Your task to perform on an android device: Search for "razer huntsman" on ebay.com, select the first entry, and add it to the cart. Image 0: 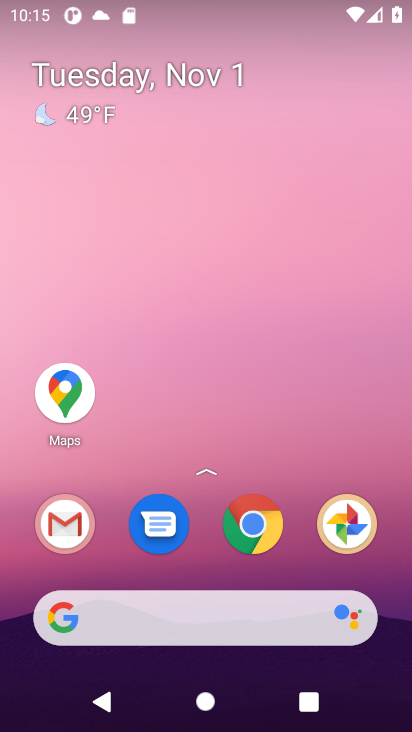
Step 0: press home button
Your task to perform on an android device: Search for "razer huntsman" on ebay.com, select the first entry, and add it to the cart. Image 1: 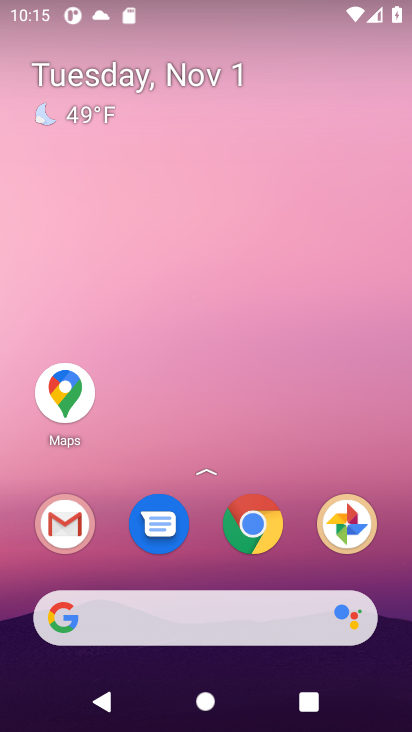
Step 1: click (95, 620)
Your task to perform on an android device: Search for "razer huntsman" on ebay.com, select the first entry, and add it to the cart. Image 2: 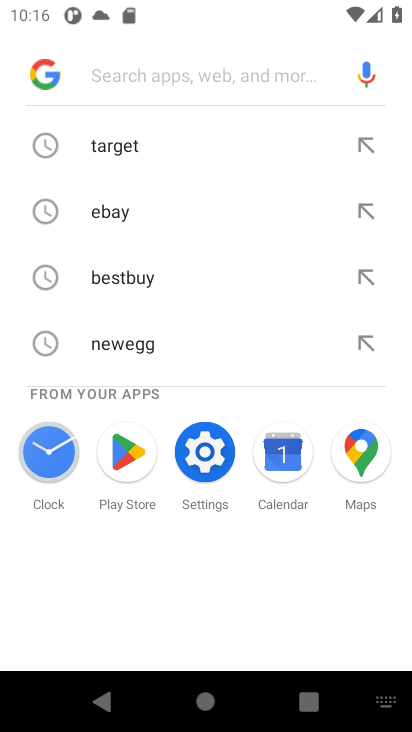
Step 2: type "ebay.com"
Your task to perform on an android device: Search for "razer huntsman" on ebay.com, select the first entry, and add it to the cart. Image 3: 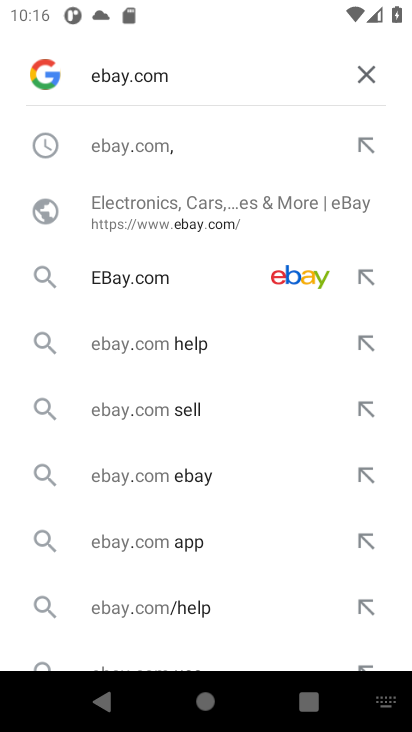
Step 3: press enter
Your task to perform on an android device: Search for "razer huntsman" on ebay.com, select the first entry, and add it to the cart. Image 4: 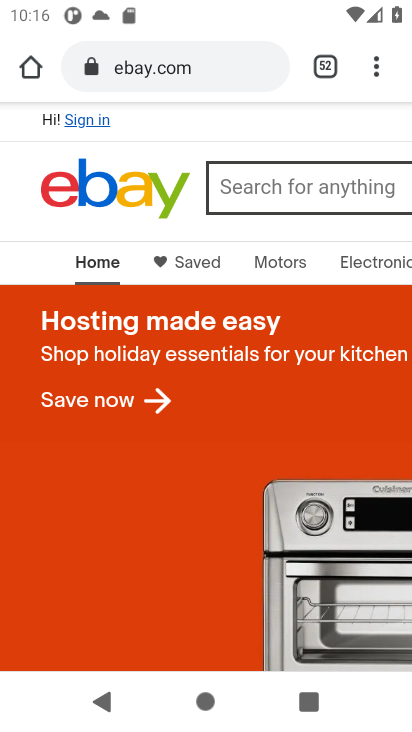
Step 4: click (260, 183)
Your task to perform on an android device: Search for "razer huntsman" on ebay.com, select the first entry, and add it to the cart. Image 5: 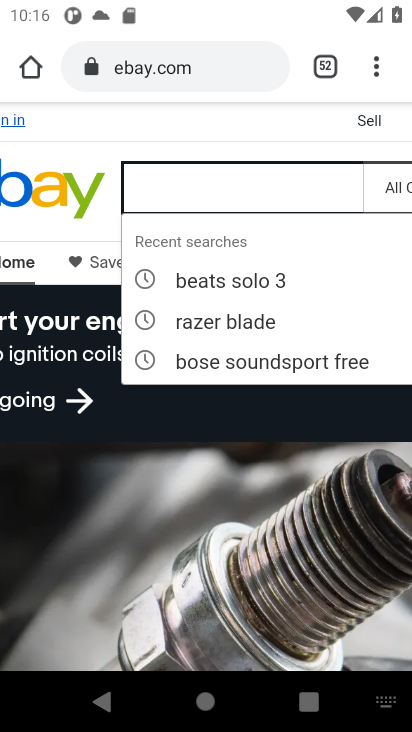
Step 5: type "razer huntsman"
Your task to perform on an android device: Search for "razer huntsman" on ebay.com, select the first entry, and add it to the cart. Image 6: 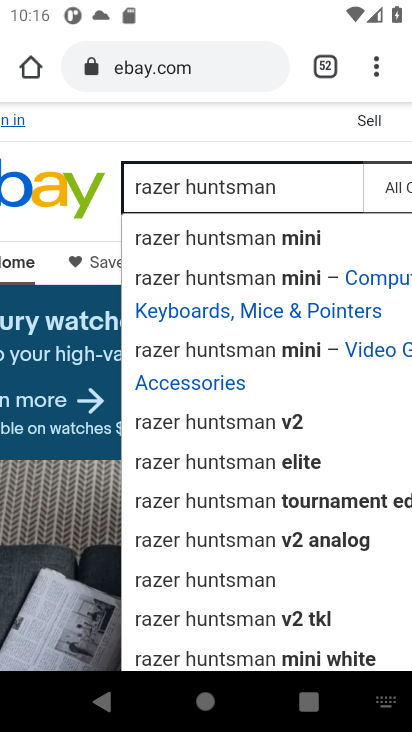
Step 6: press enter
Your task to perform on an android device: Search for "razer huntsman" on ebay.com, select the first entry, and add it to the cart. Image 7: 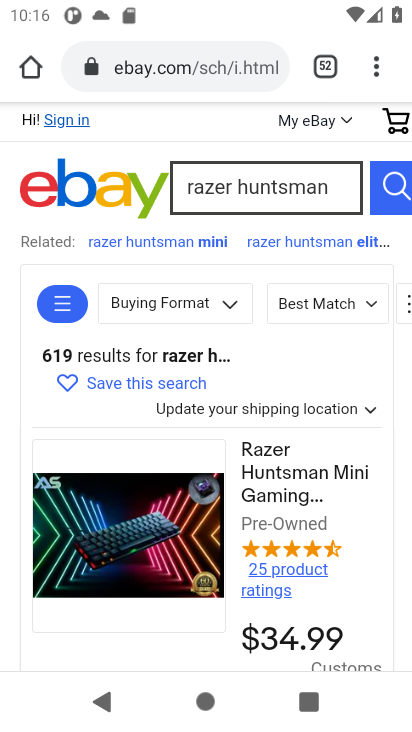
Step 7: click (286, 475)
Your task to perform on an android device: Search for "razer huntsman" on ebay.com, select the first entry, and add it to the cart. Image 8: 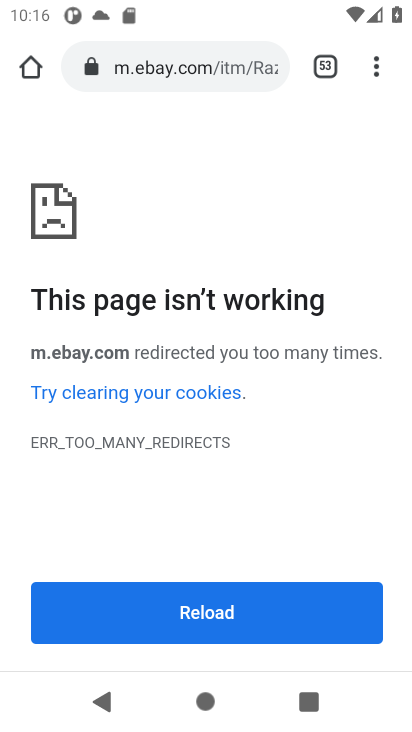
Step 8: task complete